Your task to perform on an android device: Open maps Image 0: 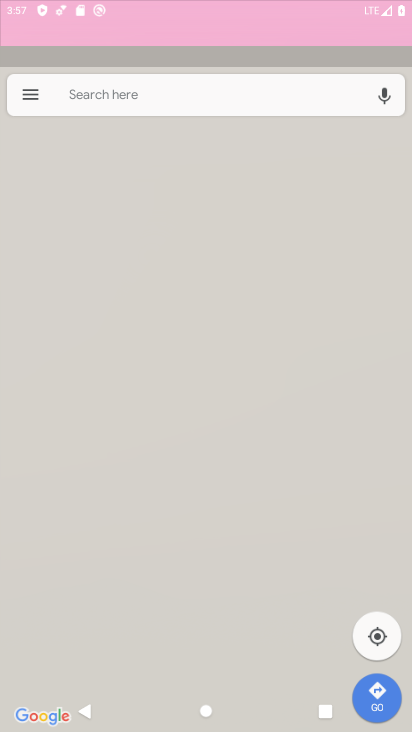
Step 0: press home button
Your task to perform on an android device: Open maps Image 1: 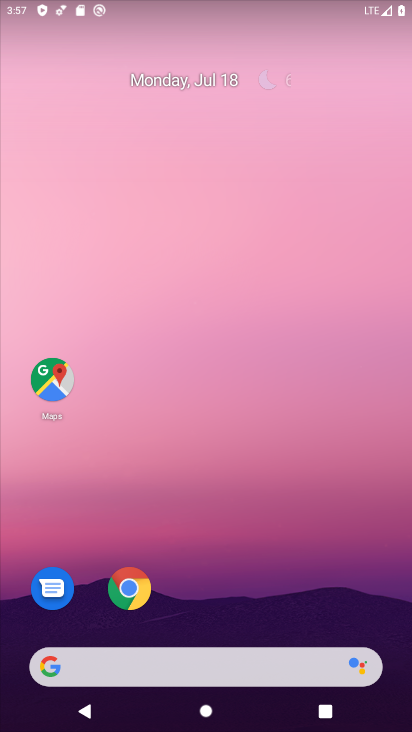
Step 1: click (55, 389)
Your task to perform on an android device: Open maps Image 2: 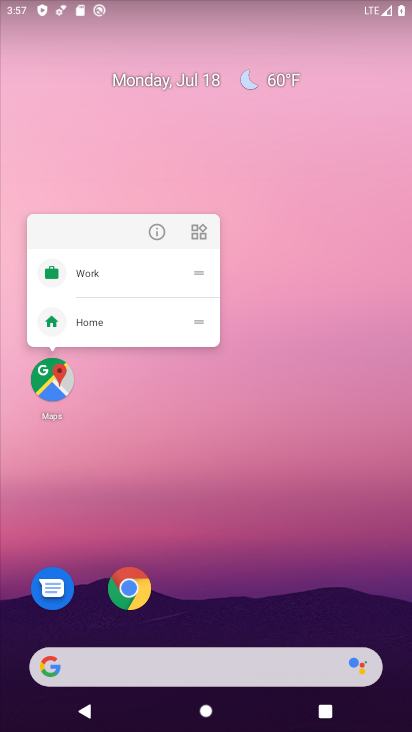
Step 2: click (55, 389)
Your task to perform on an android device: Open maps Image 3: 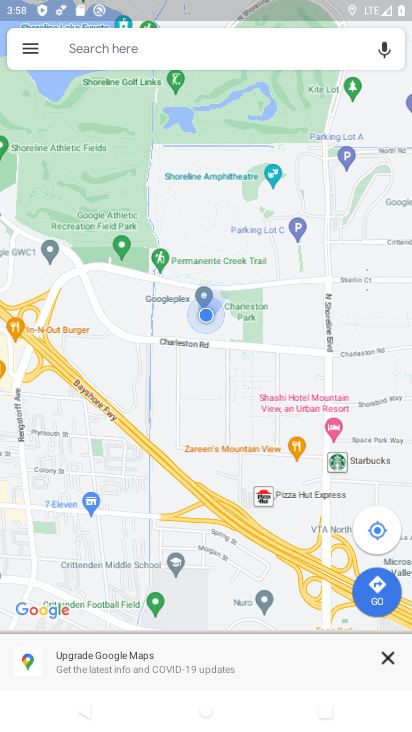
Step 3: task complete